Your task to perform on an android device: install app "Cash App" Image 0: 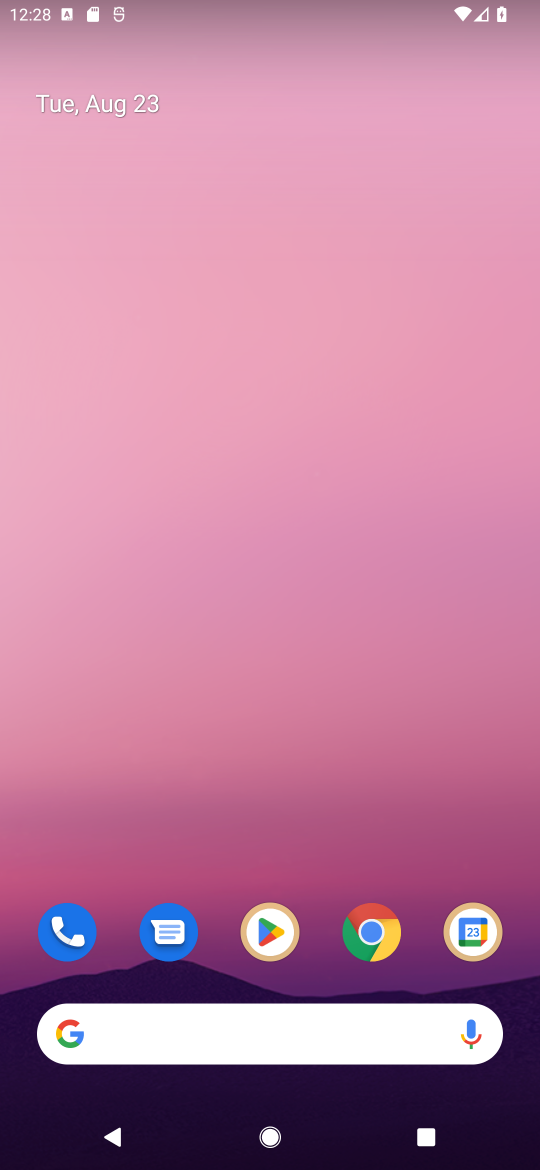
Step 0: click (279, 933)
Your task to perform on an android device: install app "Cash App" Image 1: 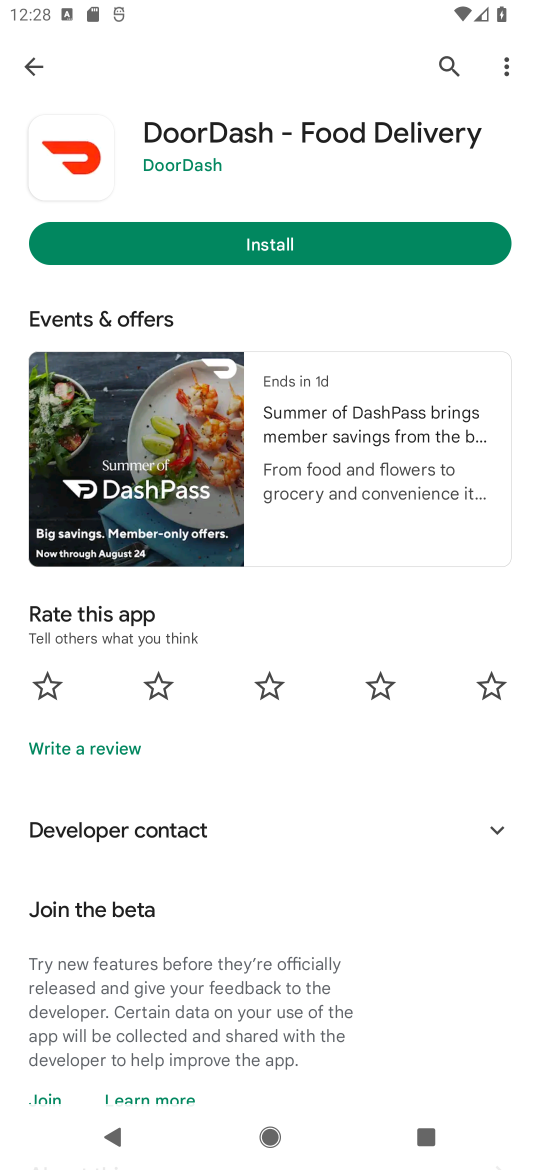
Step 1: click (447, 70)
Your task to perform on an android device: install app "Cash App" Image 2: 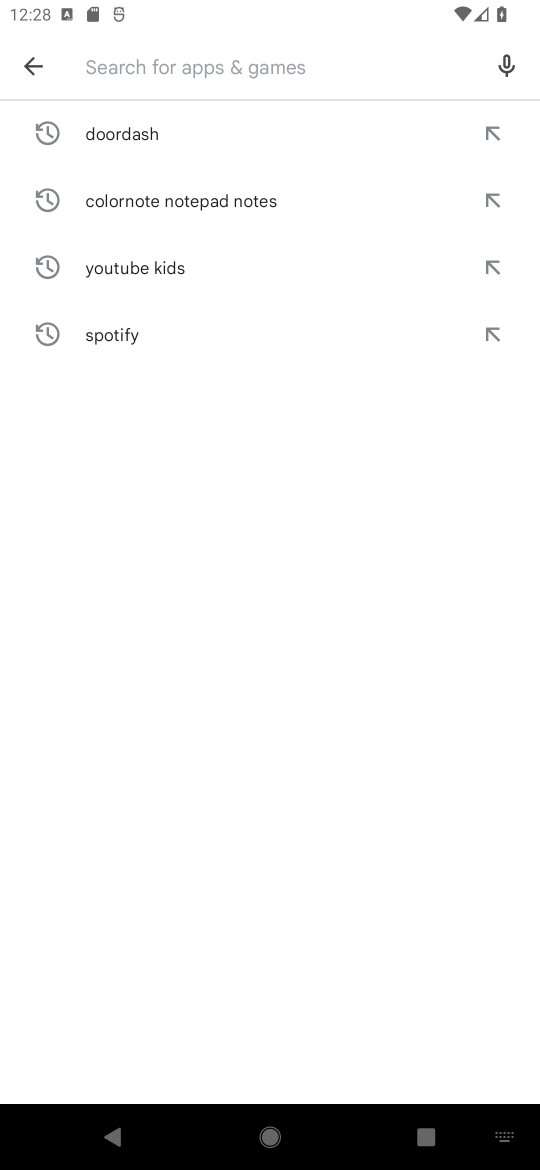
Step 2: click (108, 69)
Your task to perform on an android device: install app "Cash App" Image 3: 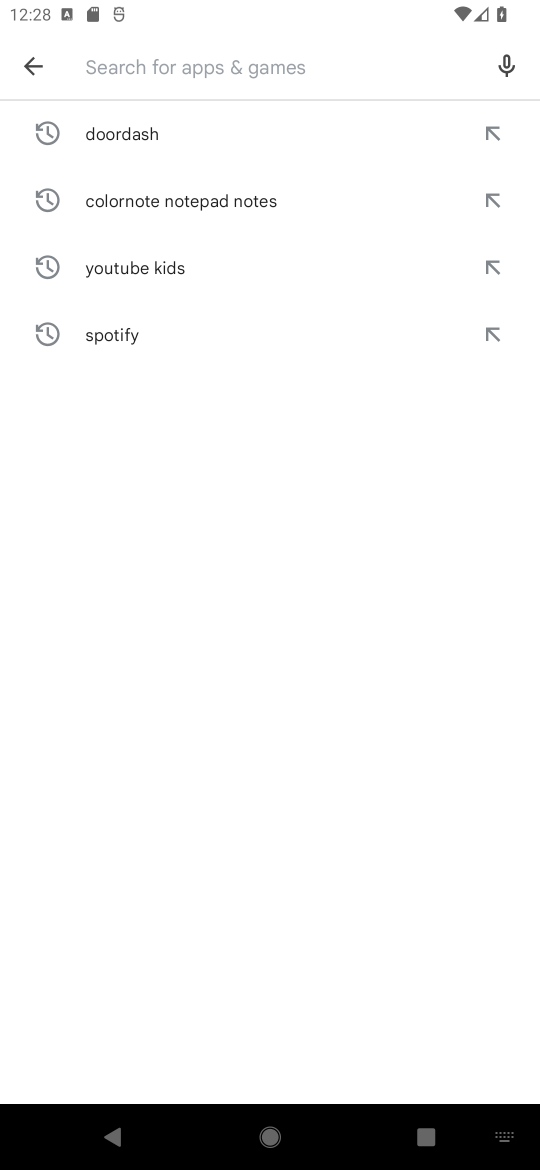
Step 3: click (157, 47)
Your task to perform on an android device: install app "Cash App" Image 4: 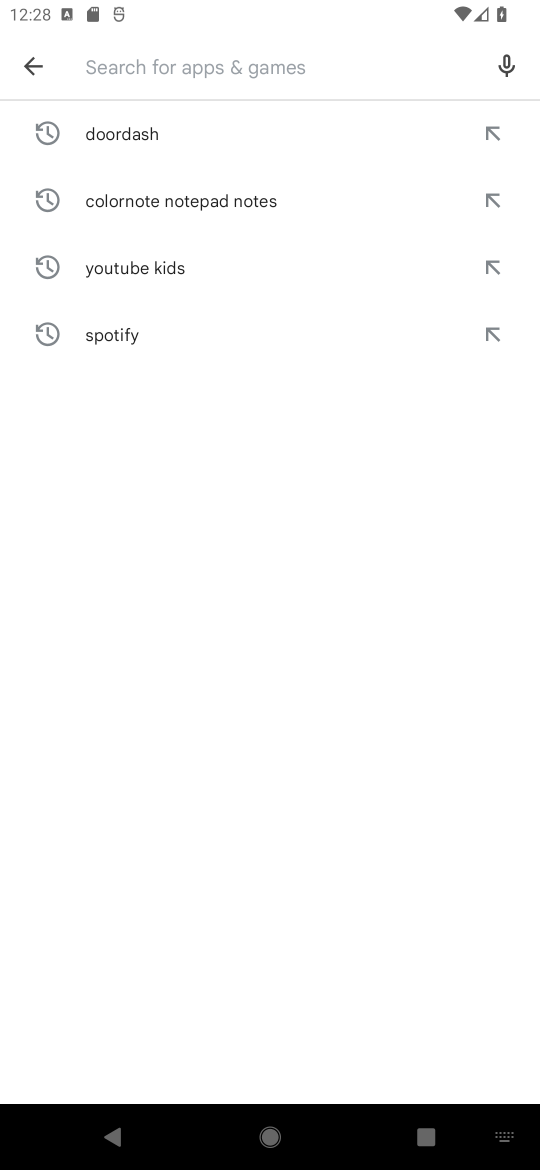
Step 4: type "Cash App"
Your task to perform on an android device: install app "Cash App" Image 5: 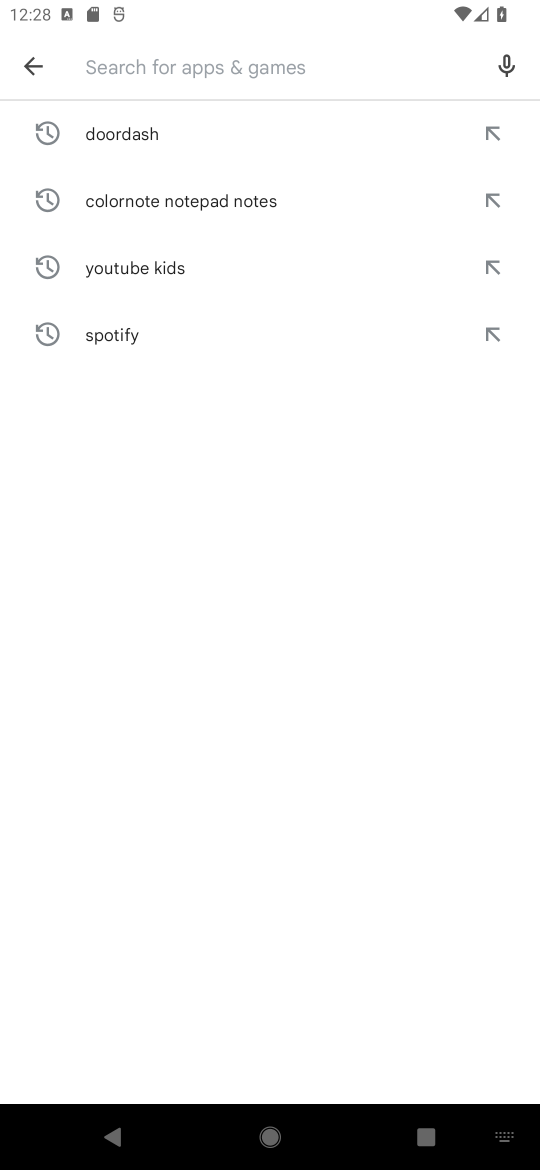
Step 5: click (379, 780)
Your task to perform on an android device: install app "Cash App" Image 6: 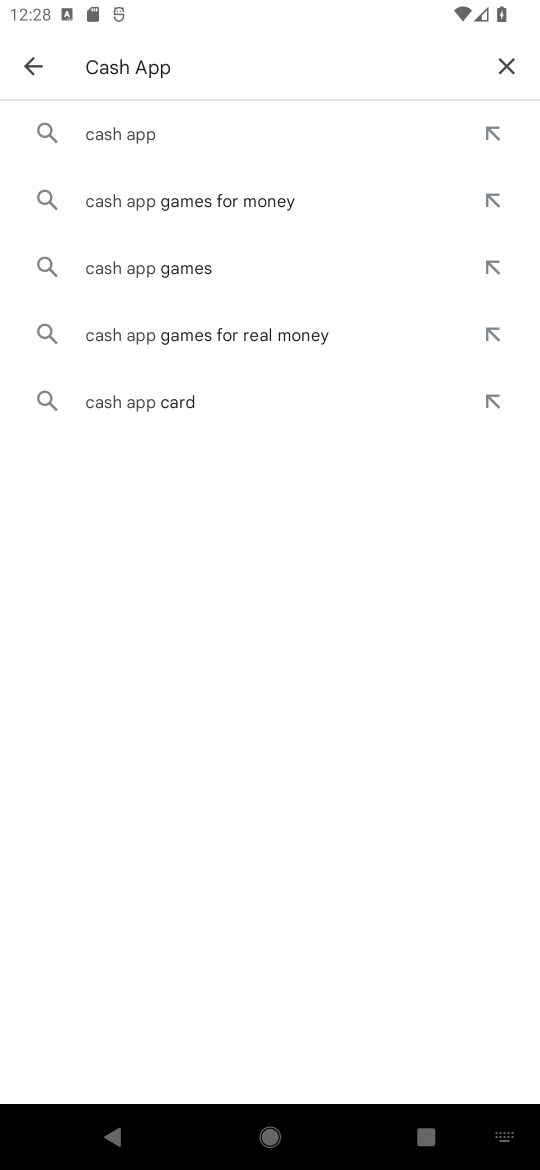
Step 6: click (132, 141)
Your task to perform on an android device: install app "Cash App" Image 7: 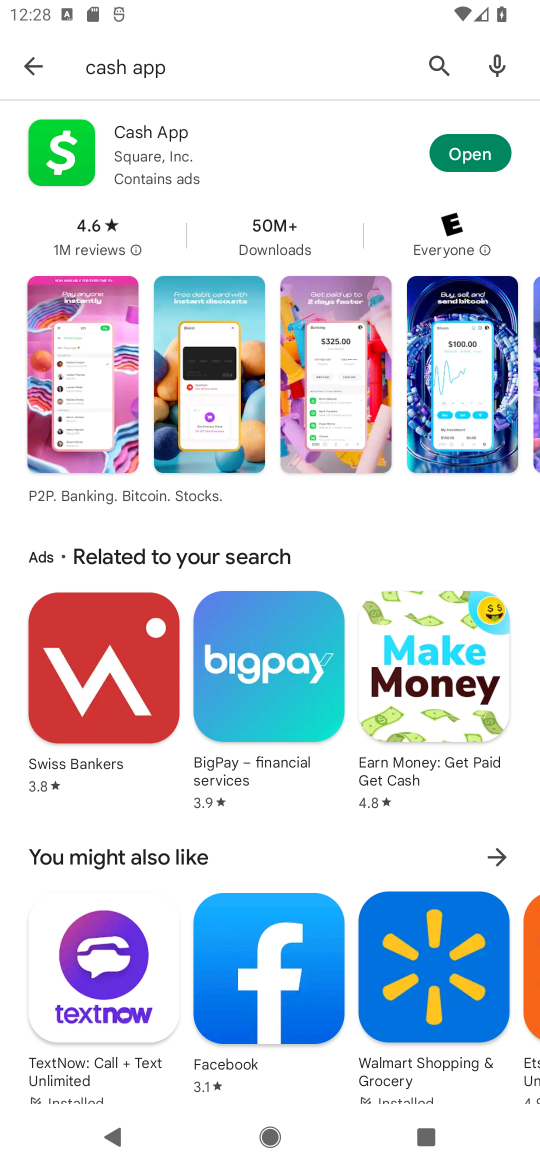
Step 7: click (192, 144)
Your task to perform on an android device: install app "Cash App" Image 8: 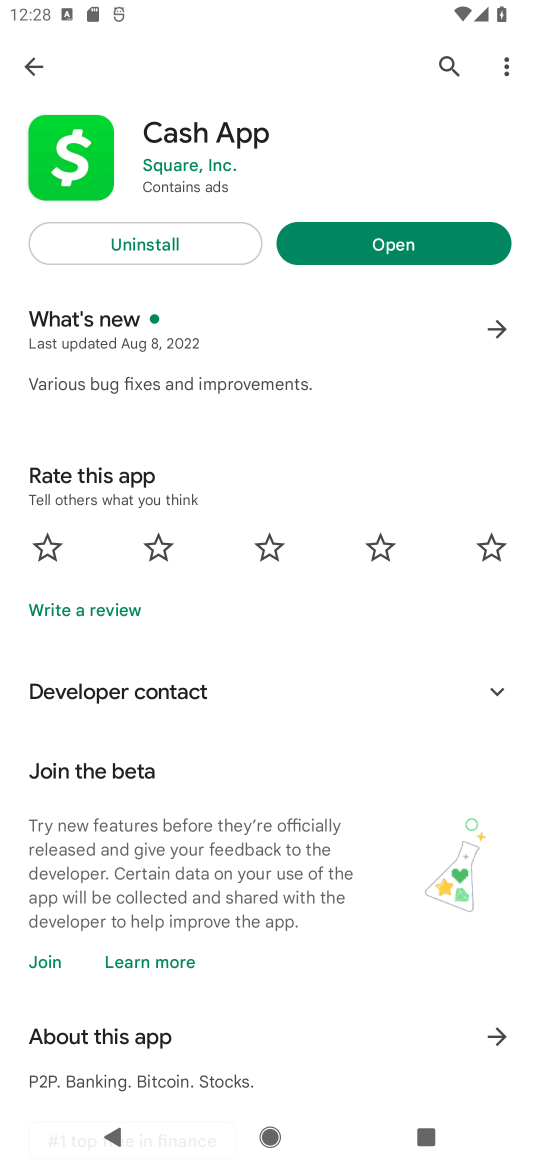
Step 8: task complete